Your task to perform on an android device: Go to battery settings Image 0: 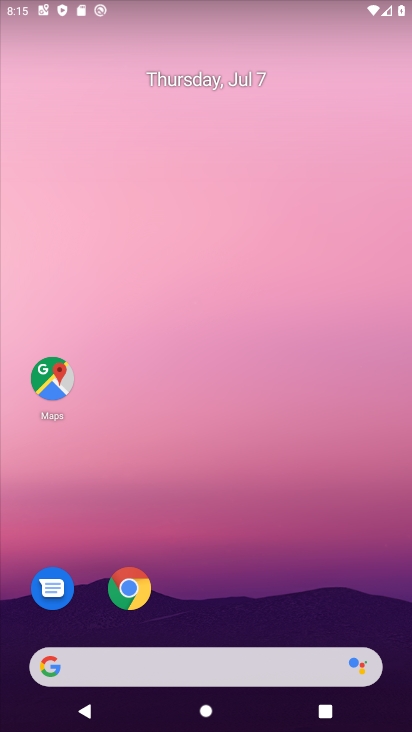
Step 0: drag from (269, 335) to (269, 178)
Your task to perform on an android device: Go to battery settings Image 1: 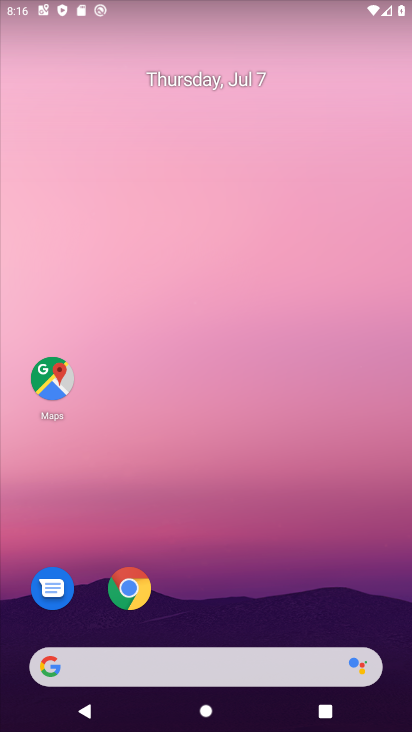
Step 1: drag from (195, 532) to (261, 161)
Your task to perform on an android device: Go to battery settings Image 2: 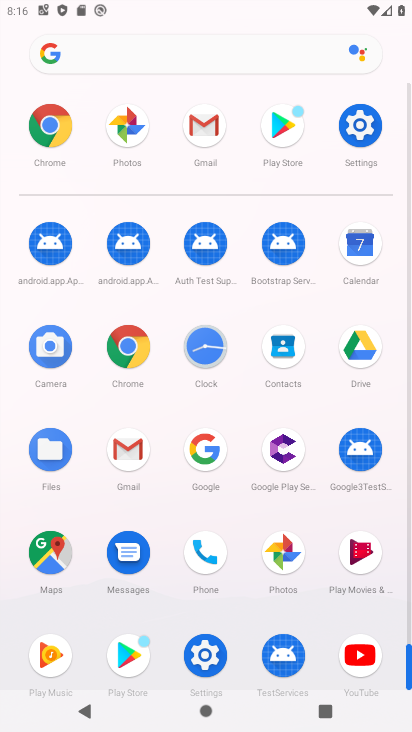
Step 2: click (356, 115)
Your task to perform on an android device: Go to battery settings Image 3: 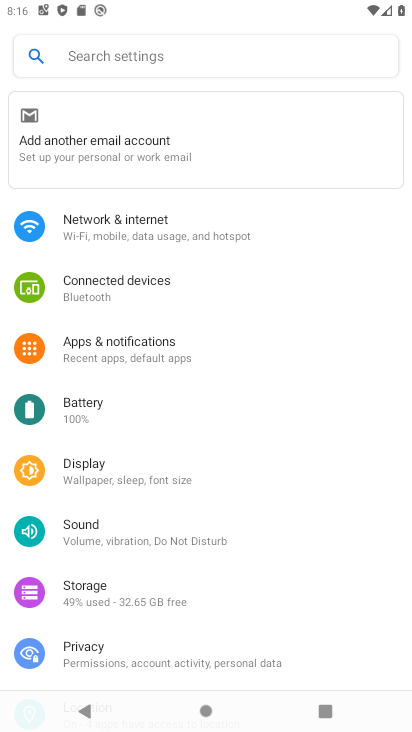
Step 3: click (132, 410)
Your task to perform on an android device: Go to battery settings Image 4: 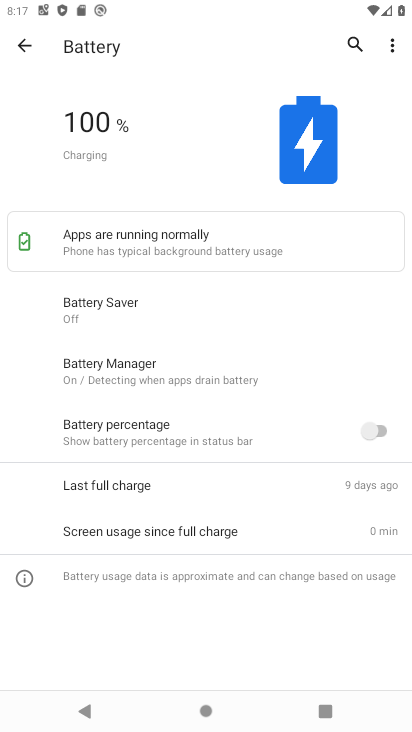
Step 4: task complete